Your task to perform on an android device: turn on showing notifications on the lock screen Image 0: 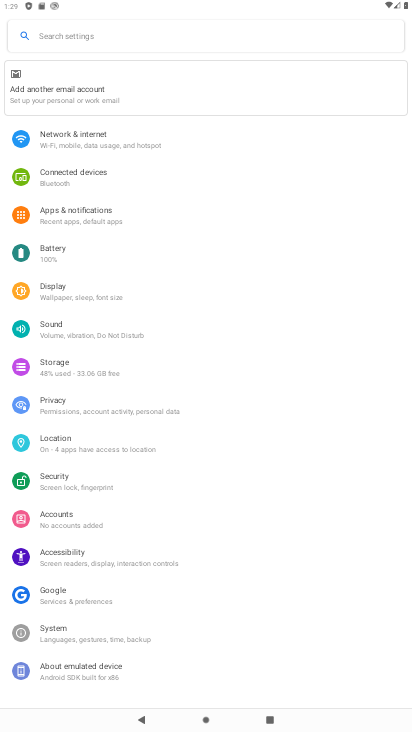
Step 0: click (89, 230)
Your task to perform on an android device: turn on showing notifications on the lock screen Image 1: 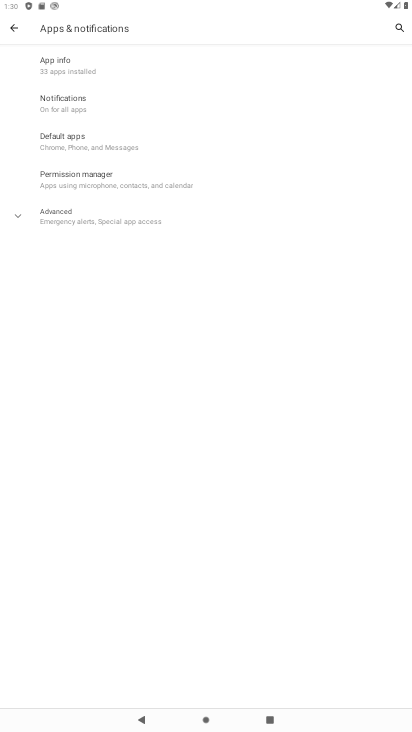
Step 1: click (66, 95)
Your task to perform on an android device: turn on showing notifications on the lock screen Image 2: 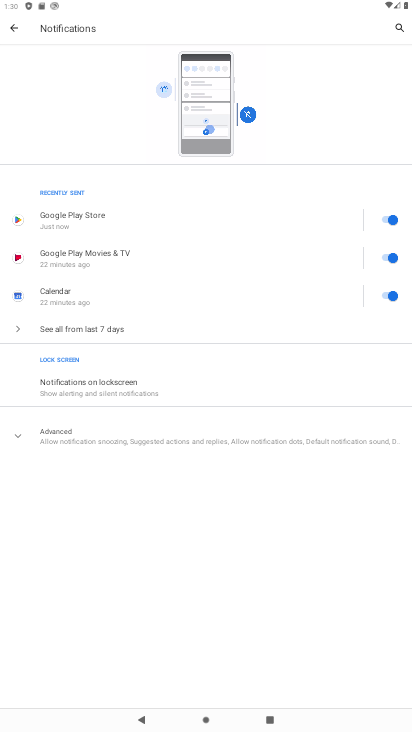
Step 2: click (285, 389)
Your task to perform on an android device: turn on showing notifications on the lock screen Image 3: 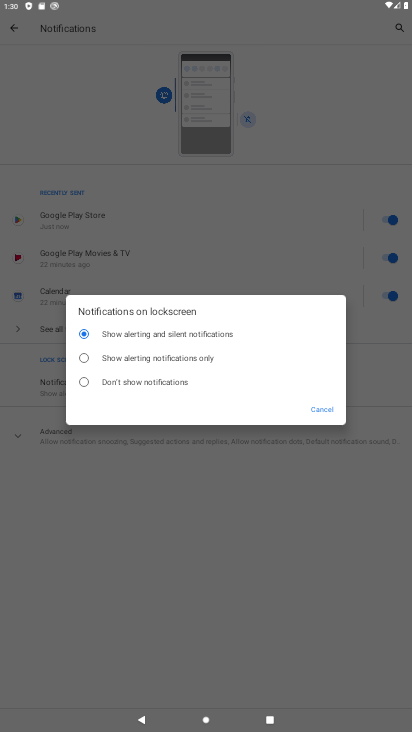
Step 3: click (242, 330)
Your task to perform on an android device: turn on showing notifications on the lock screen Image 4: 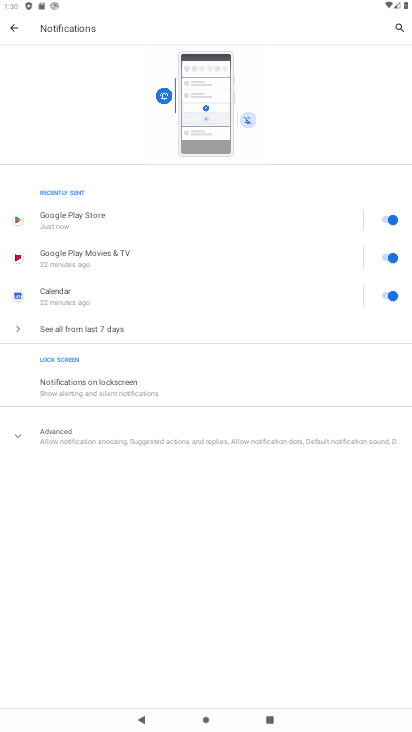
Step 4: task complete